Your task to perform on an android device: find photos in the google photos app Image 0: 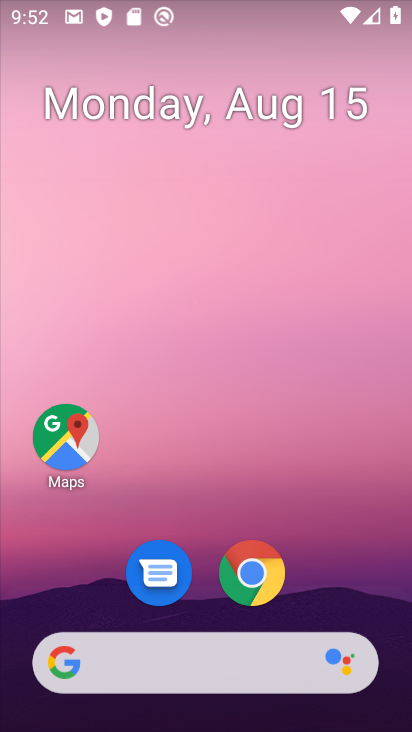
Step 0: drag from (325, 598) to (202, 165)
Your task to perform on an android device: find photos in the google photos app Image 1: 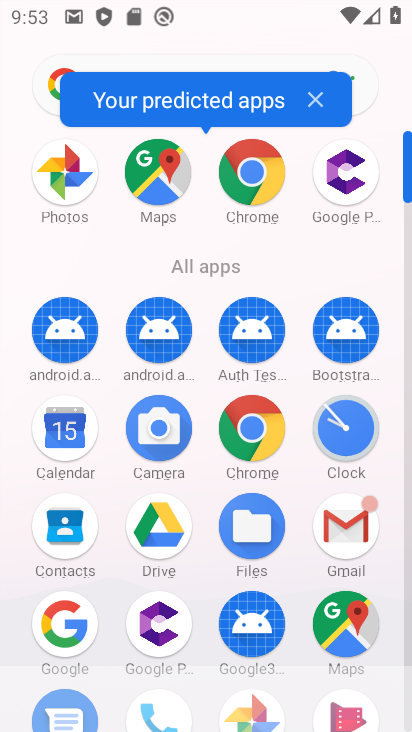
Step 1: click (64, 167)
Your task to perform on an android device: find photos in the google photos app Image 2: 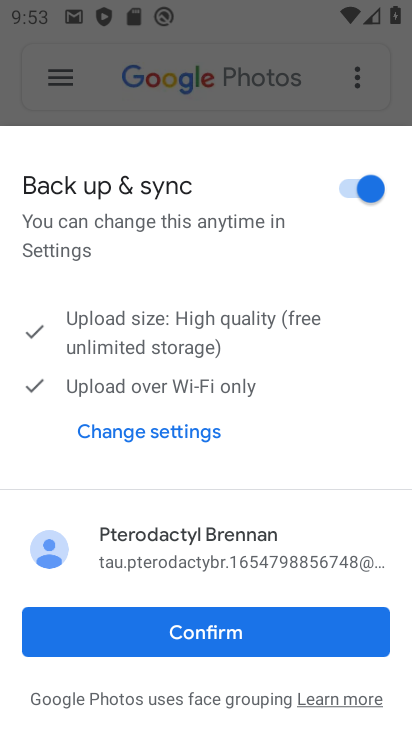
Step 2: click (210, 633)
Your task to perform on an android device: find photos in the google photos app Image 3: 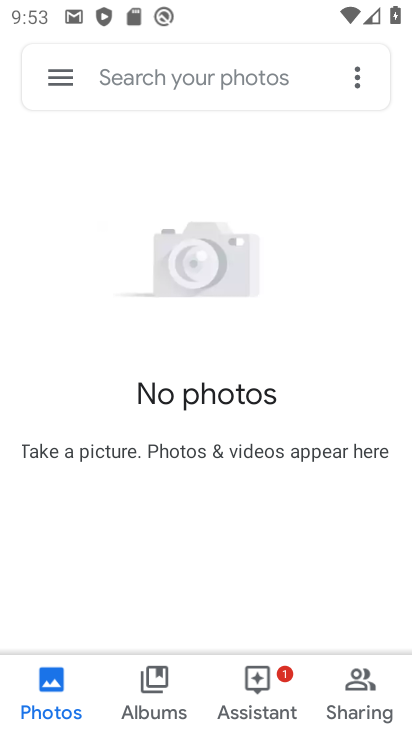
Step 3: click (124, 73)
Your task to perform on an android device: find photos in the google photos app Image 4: 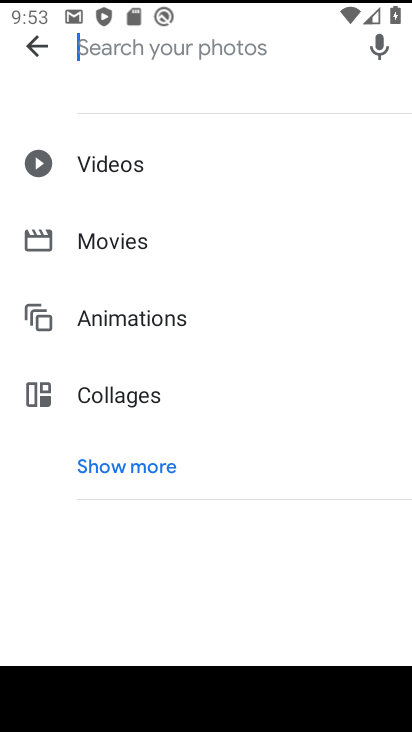
Step 4: task complete